Your task to perform on an android device: check storage Image 0: 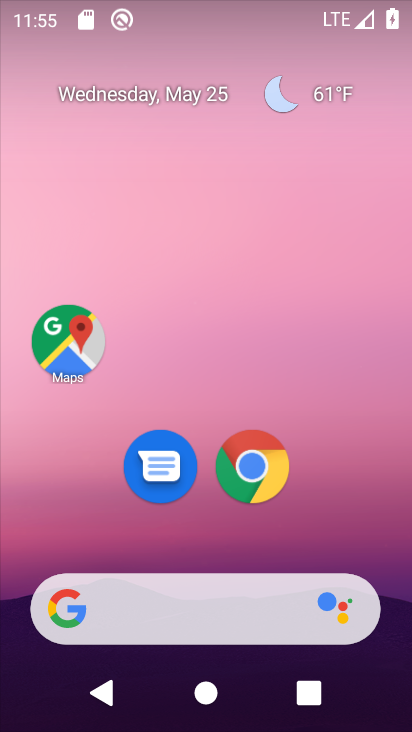
Step 0: drag from (228, 544) to (325, 78)
Your task to perform on an android device: check storage Image 1: 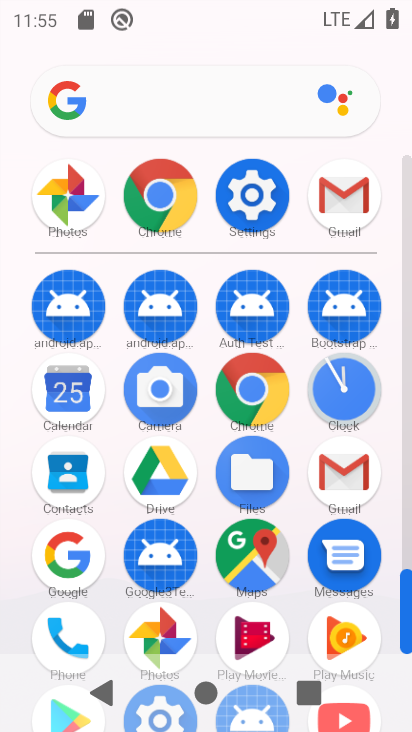
Step 1: click (262, 189)
Your task to perform on an android device: check storage Image 2: 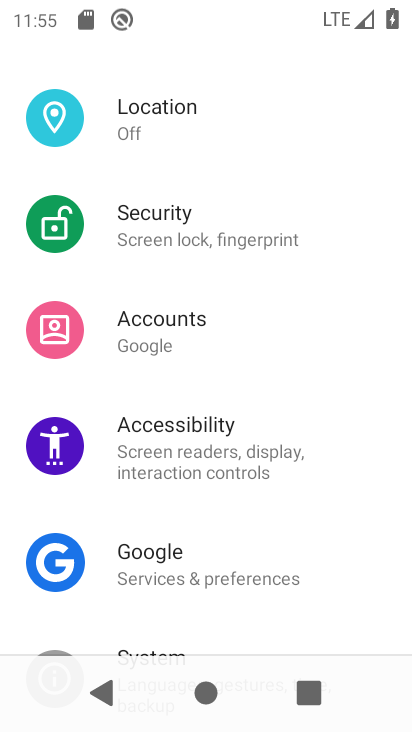
Step 2: drag from (183, 497) to (243, 120)
Your task to perform on an android device: check storage Image 3: 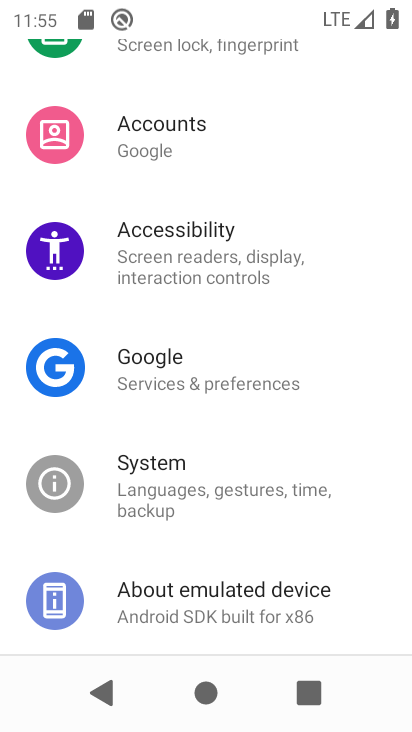
Step 3: drag from (205, 243) to (190, 608)
Your task to perform on an android device: check storage Image 4: 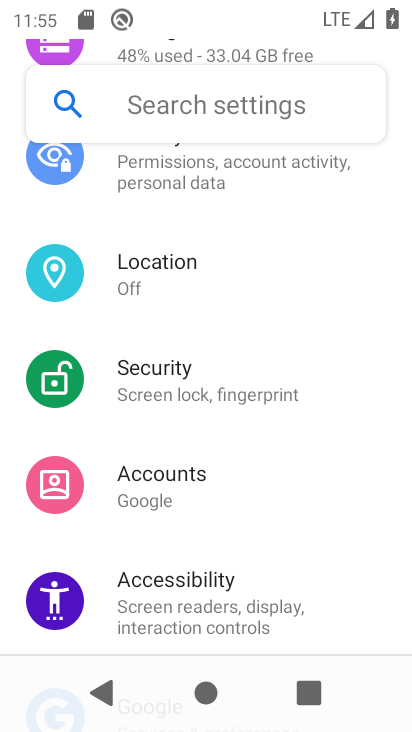
Step 4: drag from (225, 269) to (241, 521)
Your task to perform on an android device: check storage Image 5: 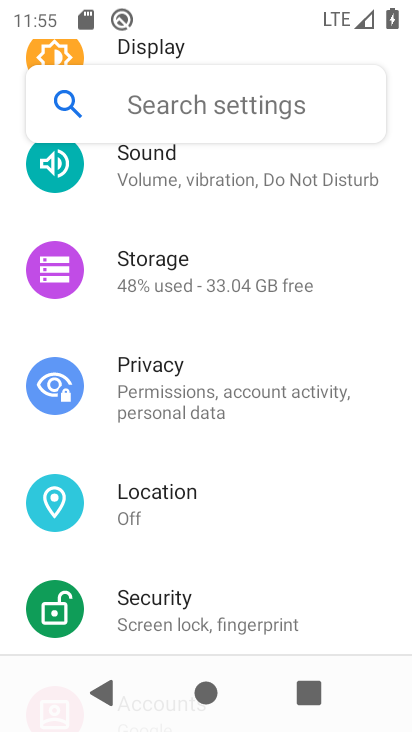
Step 5: drag from (234, 247) to (232, 515)
Your task to perform on an android device: check storage Image 6: 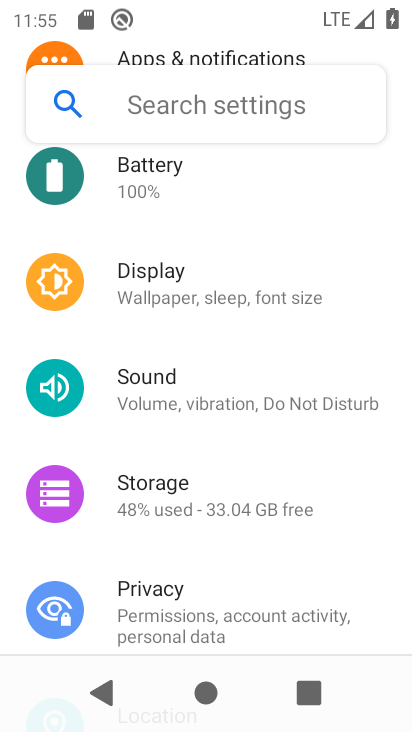
Step 6: drag from (239, 273) to (211, 553)
Your task to perform on an android device: check storage Image 7: 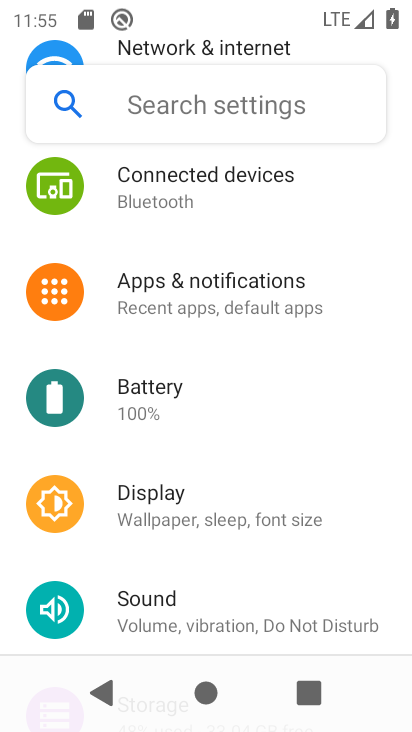
Step 7: drag from (195, 497) to (264, 253)
Your task to perform on an android device: check storage Image 8: 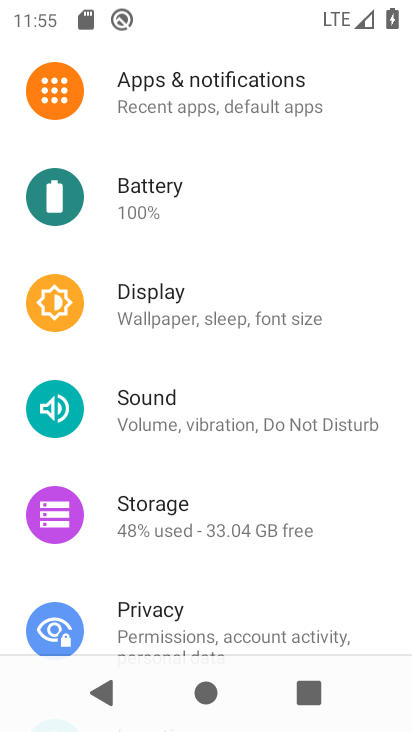
Step 8: click (174, 519)
Your task to perform on an android device: check storage Image 9: 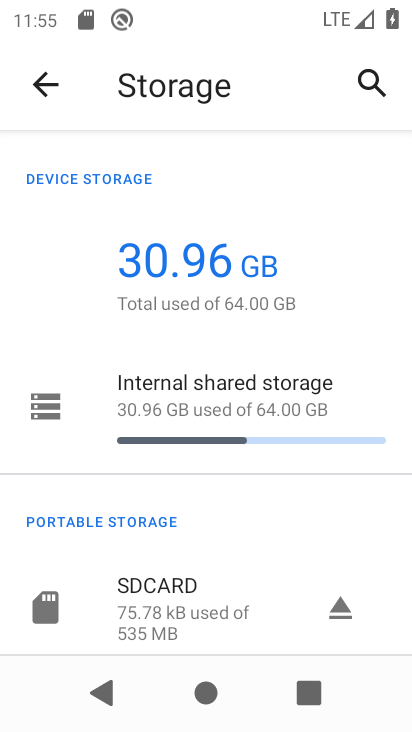
Step 9: task complete